Your task to perform on an android device: Show me productivity apps on the Play Store Image 0: 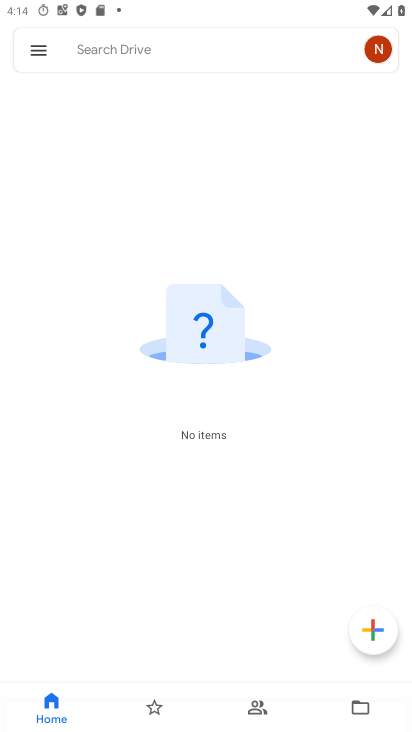
Step 0: press home button
Your task to perform on an android device: Show me productivity apps on the Play Store Image 1: 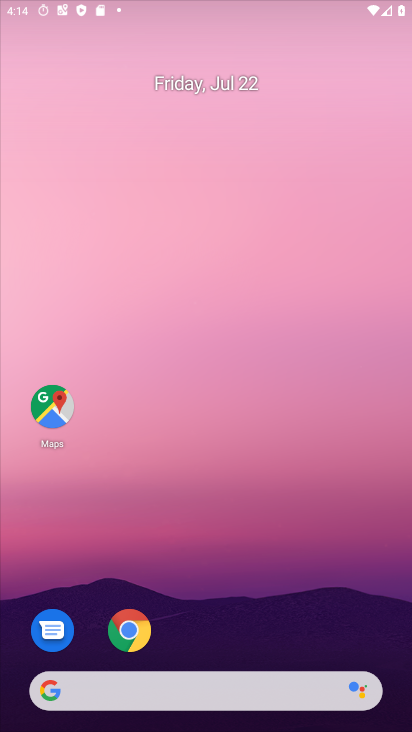
Step 1: drag from (150, 697) to (129, 4)
Your task to perform on an android device: Show me productivity apps on the Play Store Image 2: 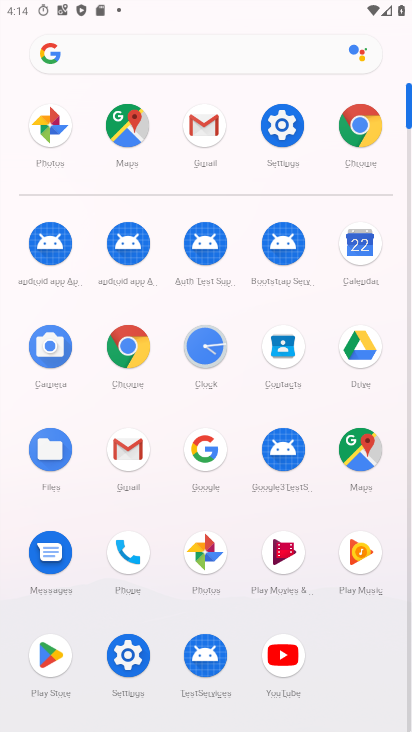
Step 2: click (46, 662)
Your task to perform on an android device: Show me productivity apps on the Play Store Image 3: 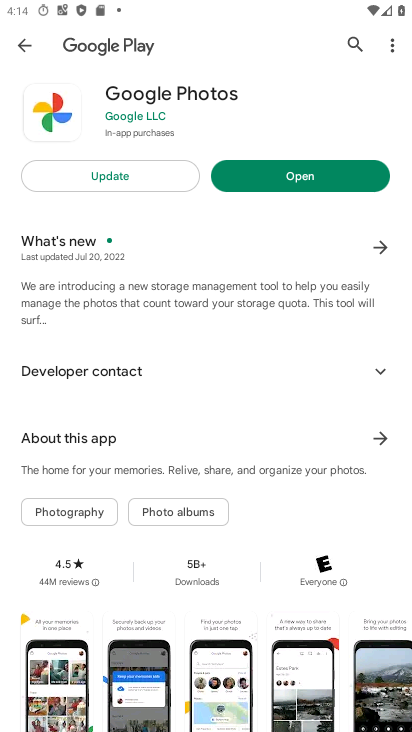
Step 3: press back button
Your task to perform on an android device: Show me productivity apps on the Play Store Image 4: 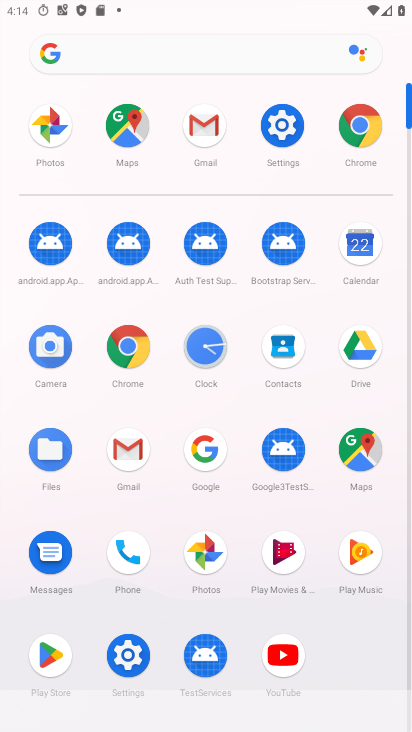
Step 4: click (53, 649)
Your task to perform on an android device: Show me productivity apps on the Play Store Image 5: 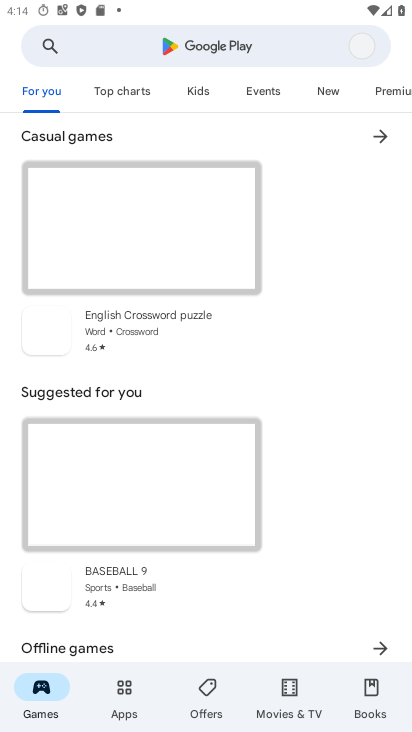
Step 5: click (126, 687)
Your task to perform on an android device: Show me productivity apps on the Play Store Image 6: 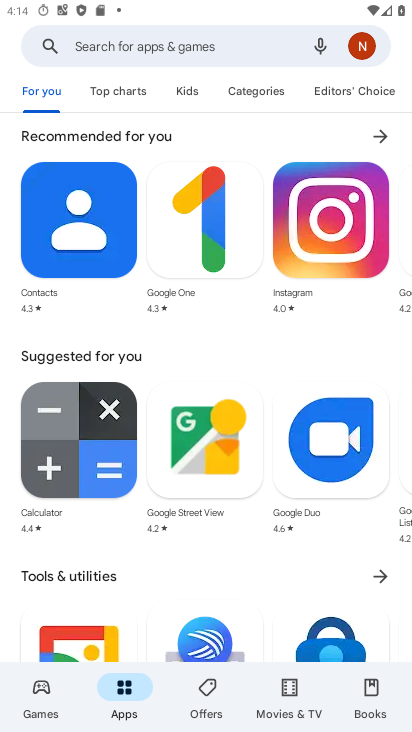
Step 6: drag from (184, 530) to (400, 613)
Your task to perform on an android device: Show me productivity apps on the Play Store Image 7: 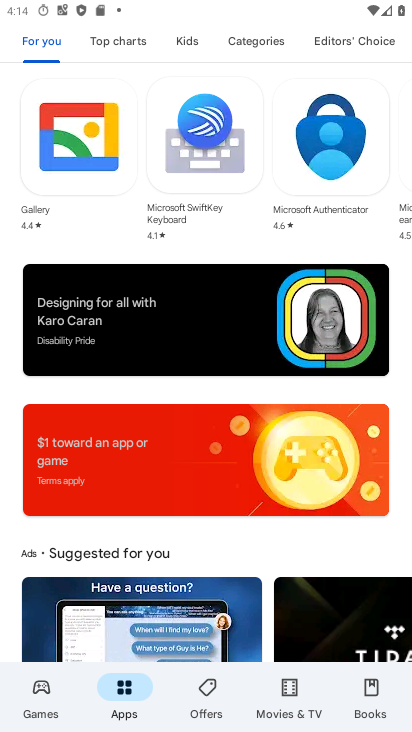
Step 7: drag from (278, 550) to (260, 18)
Your task to perform on an android device: Show me productivity apps on the Play Store Image 8: 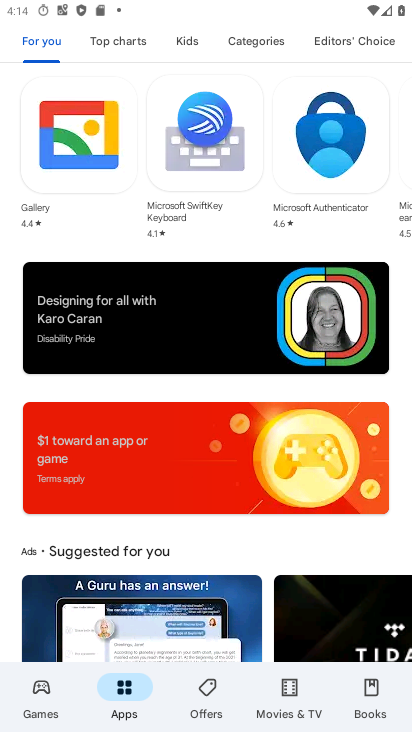
Step 8: drag from (285, 500) to (295, 43)
Your task to perform on an android device: Show me productivity apps on the Play Store Image 9: 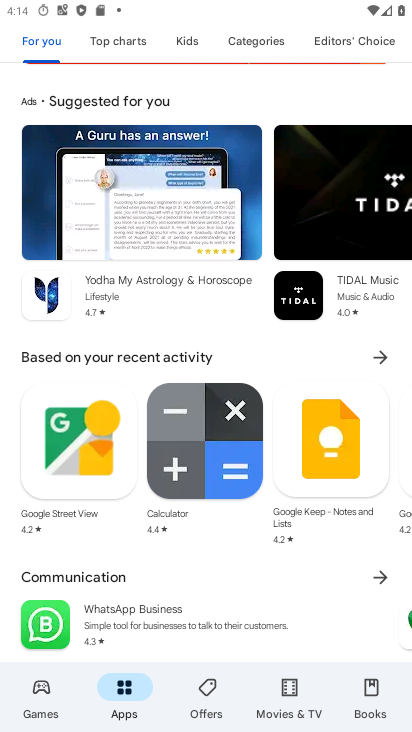
Step 9: drag from (243, 579) to (234, 113)
Your task to perform on an android device: Show me productivity apps on the Play Store Image 10: 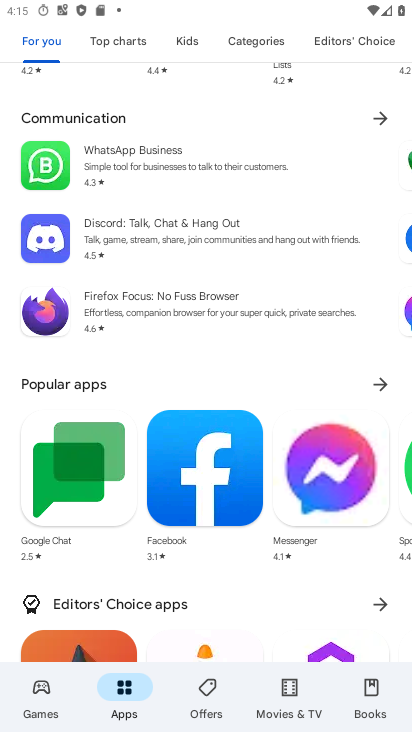
Step 10: drag from (282, 599) to (275, 50)
Your task to perform on an android device: Show me productivity apps on the Play Store Image 11: 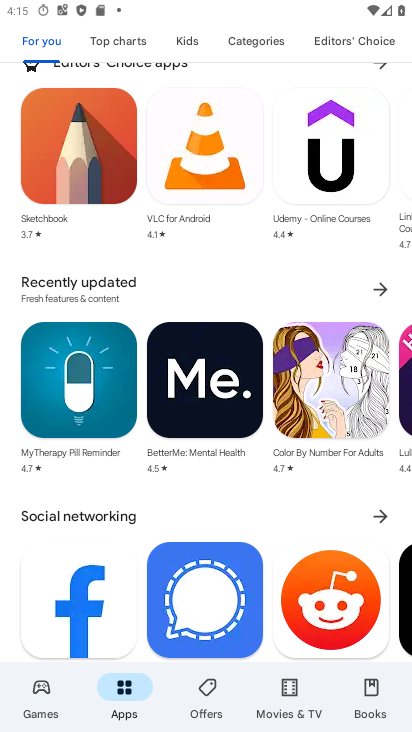
Step 11: drag from (318, 533) to (296, 139)
Your task to perform on an android device: Show me productivity apps on the Play Store Image 12: 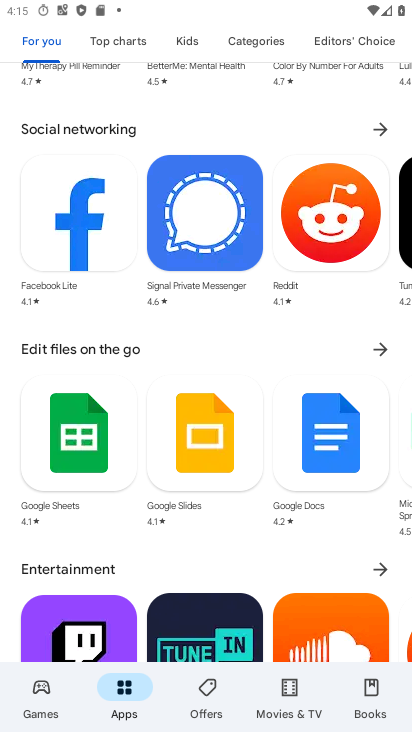
Step 12: drag from (291, 567) to (329, 192)
Your task to perform on an android device: Show me productivity apps on the Play Store Image 13: 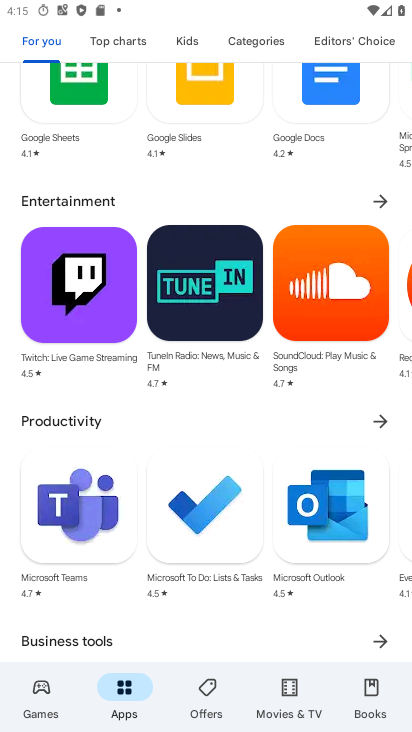
Step 13: click (384, 418)
Your task to perform on an android device: Show me productivity apps on the Play Store Image 14: 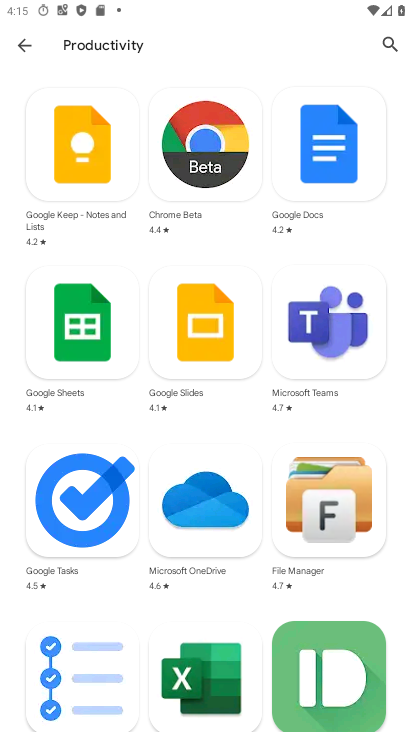
Step 14: task complete